Your task to perform on an android device: check battery use Image 0: 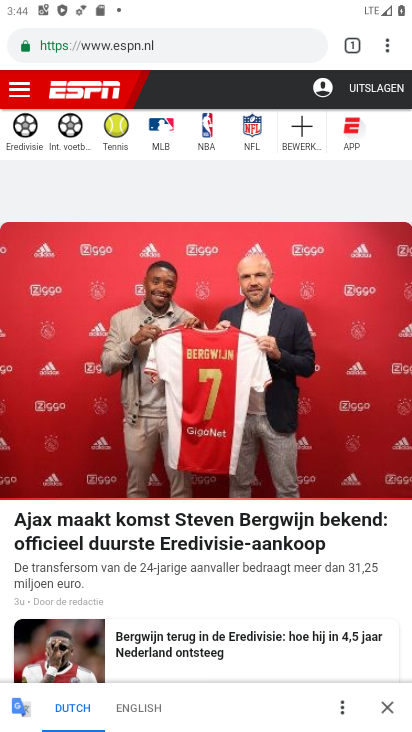
Step 0: press home button
Your task to perform on an android device: check battery use Image 1: 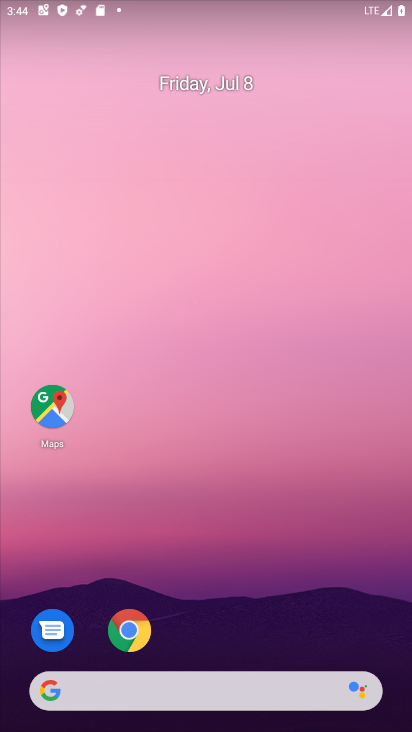
Step 1: drag from (209, 657) to (200, 92)
Your task to perform on an android device: check battery use Image 2: 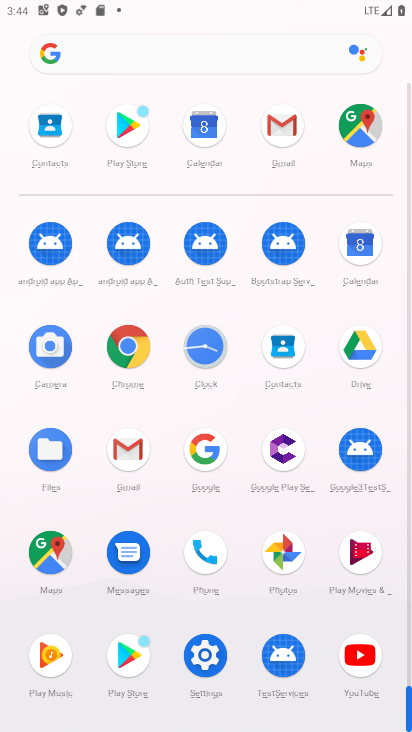
Step 2: click (203, 653)
Your task to perform on an android device: check battery use Image 3: 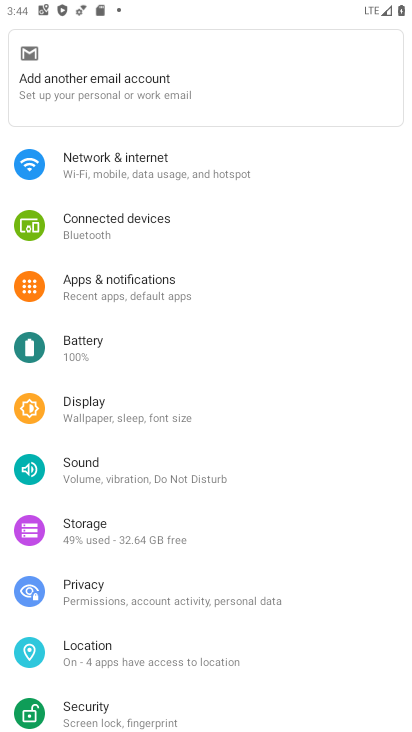
Step 3: click (93, 342)
Your task to perform on an android device: check battery use Image 4: 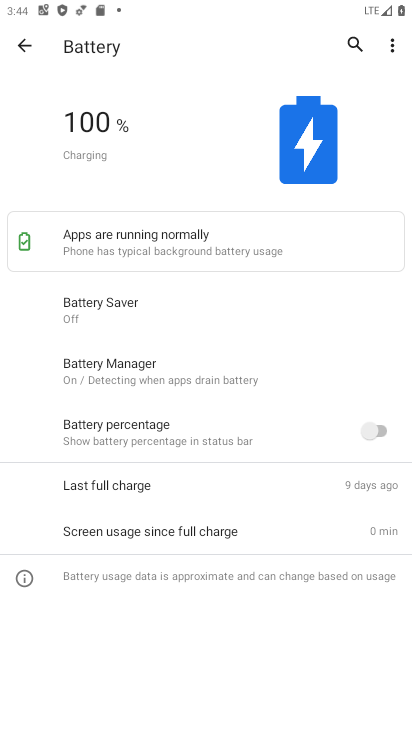
Step 4: click (390, 39)
Your task to perform on an android device: check battery use Image 5: 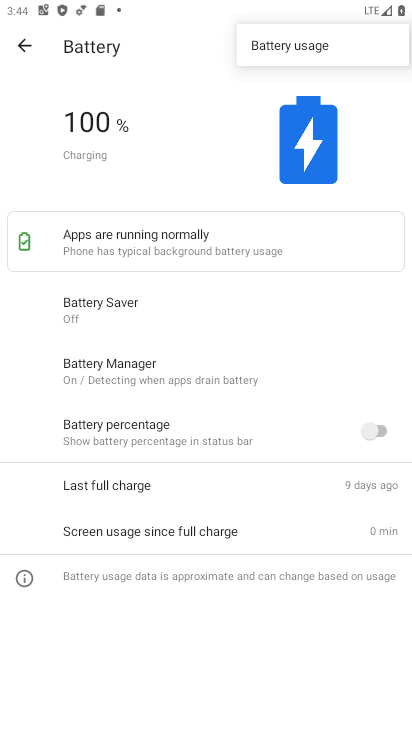
Step 5: click (322, 41)
Your task to perform on an android device: check battery use Image 6: 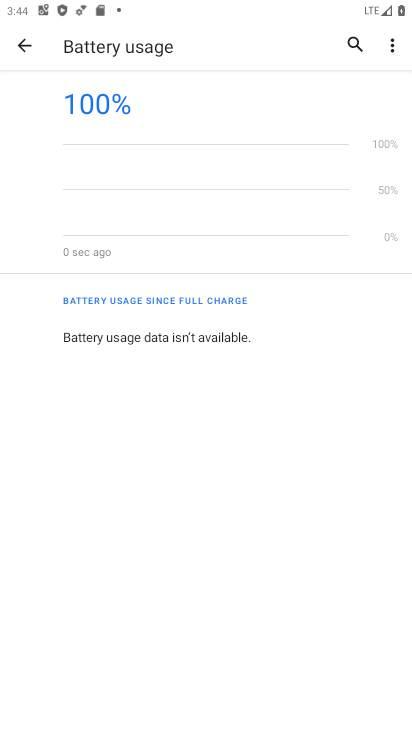
Step 6: task complete